Your task to perform on an android device: make emails show in primary in the gmail app Image 0: 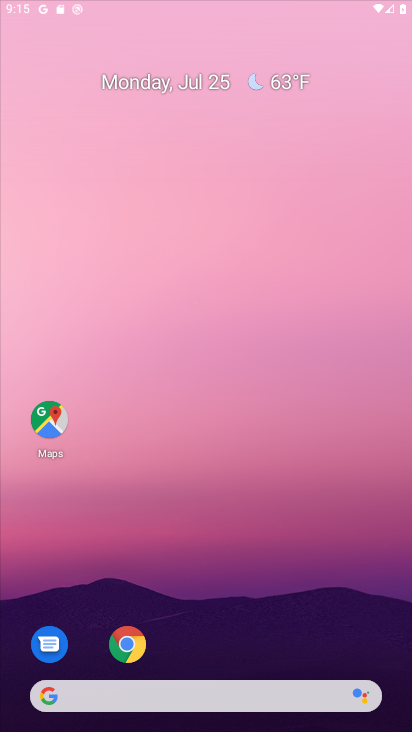
Step 0: drag from (273, 618) to (257, 108)
Your task to perform on an android device: make emails show in primary in the gmail app Image 1: 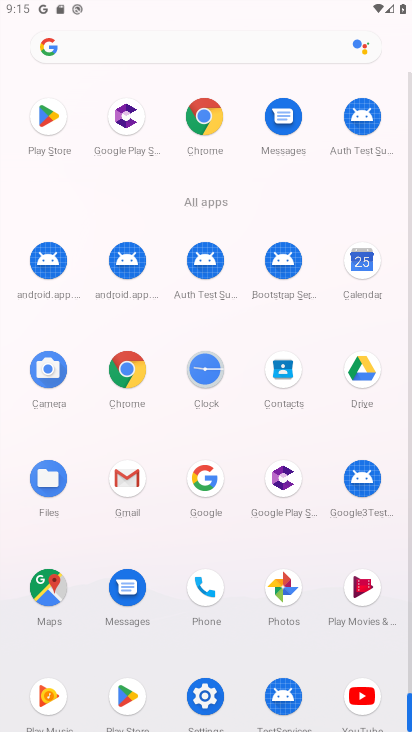
Step 1: click (130, 461)
Your task to perform on an android device: make emails show in primary in the gmail app Image 2: 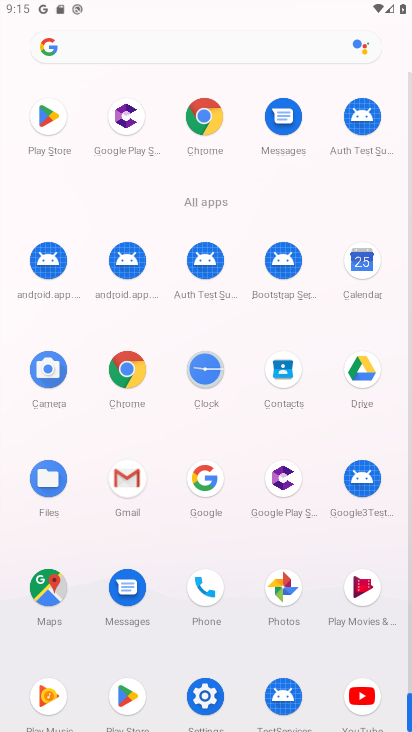
Step 2: click (121, 474)
Your task to perform on an android device: make emails show in primary in the gmail app Image 3: 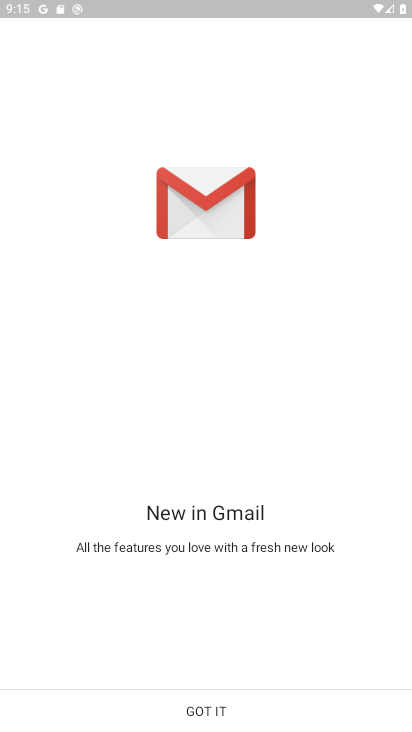
Step 3: click (216, 710)
Your task to perform on an android device: make emails show in primary in the gmail app Image 4: 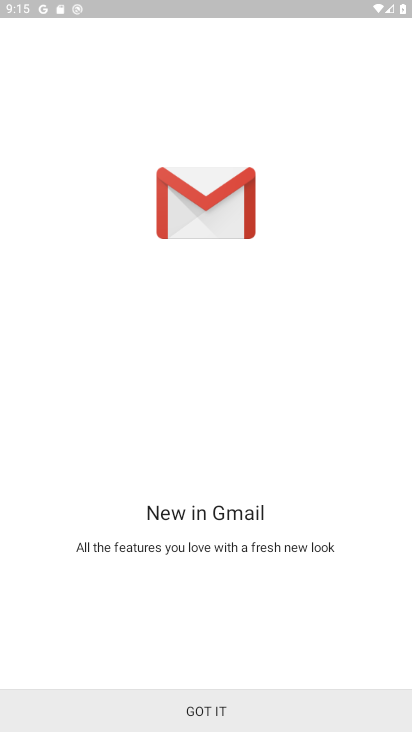
Step 4: click (226, 705)
Your task to perform on an android device: make emails show in primary in the gmail app Image 5: 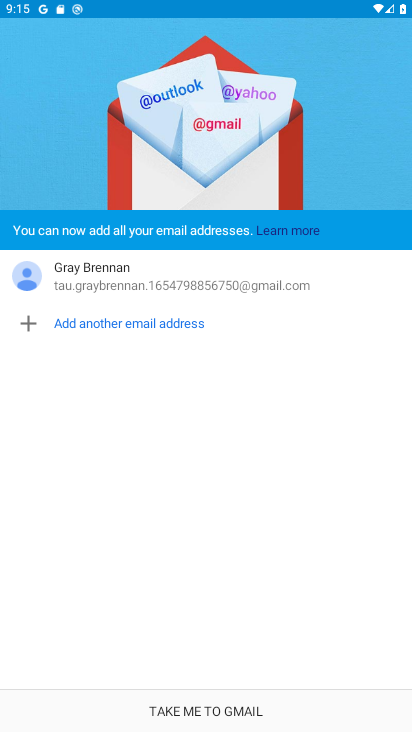
Step 5: click (252, 709)
Your task to perform on an android device: make emails show in primary in the gmail app Image 6: 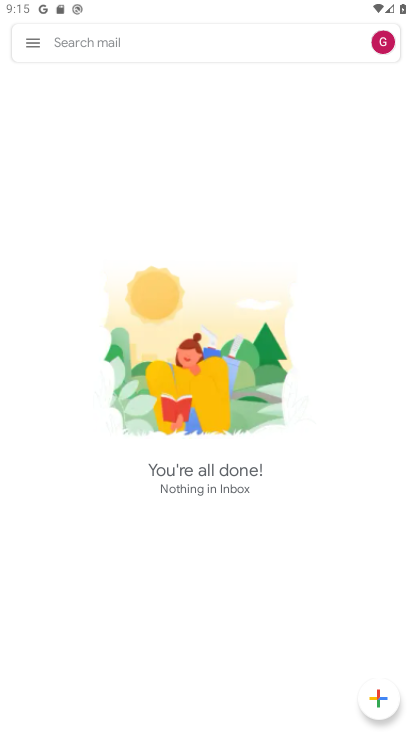
Step 6: click (40, 43)
Your task to perform on an android device: make emails show in primary in the gmail app Image 7: 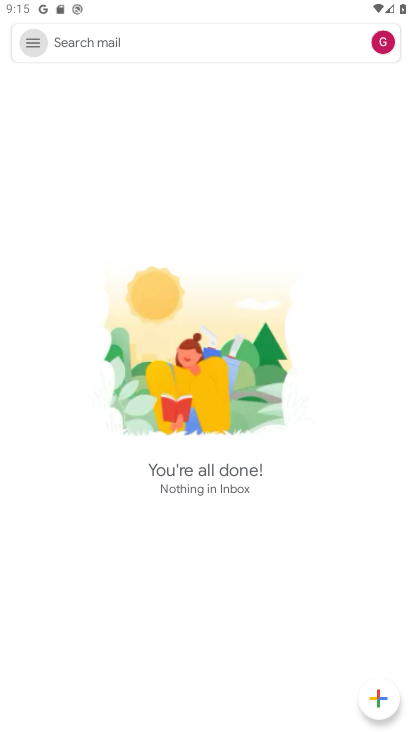
Step 7: click (29, 34)
Your task to perform on an android device: make emails show in primary in the gmail app Image 8: 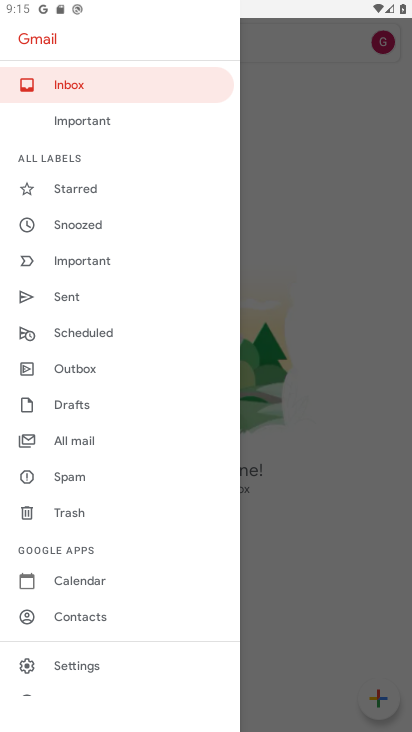
Step 8: click (77, 661)
Your task to perform on an android device: make emails show in primary in the gmail app Image 9: 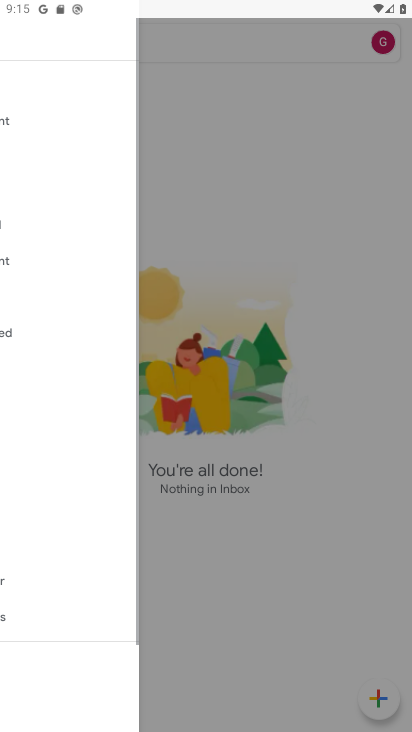
Step 9: click (77, 661)
Your task to perform on an android device: make emails show in primary in the gmail app Image 10: 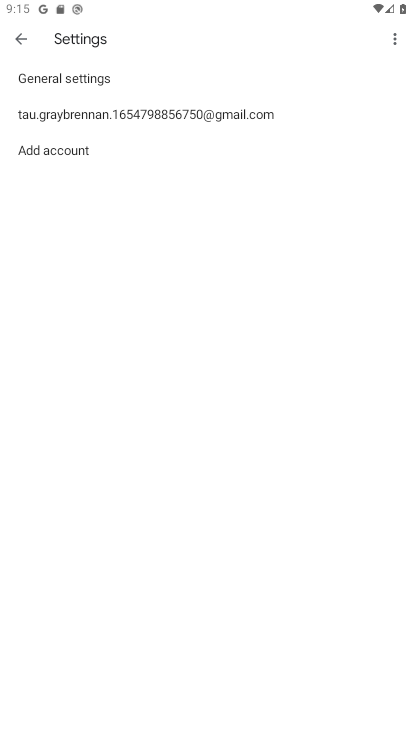
Step 10: click (55, 108)
Your task to perform on an android device: make emails show in primary in the gmail app Image 11: 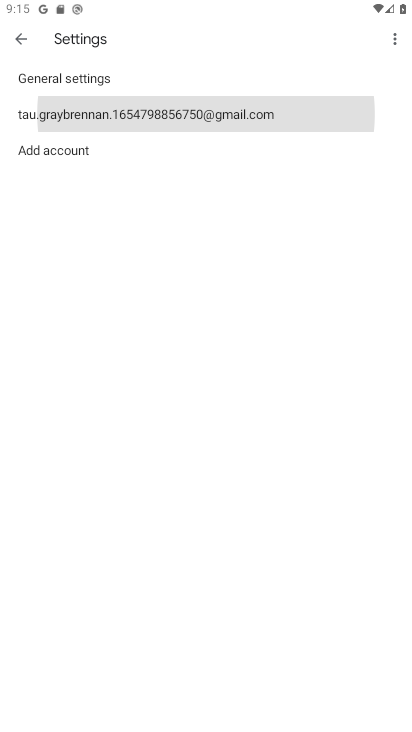
Step 11: click (57, 109)
Your task to perform on an android device: make emails show in primary in the gmail app Image 12: 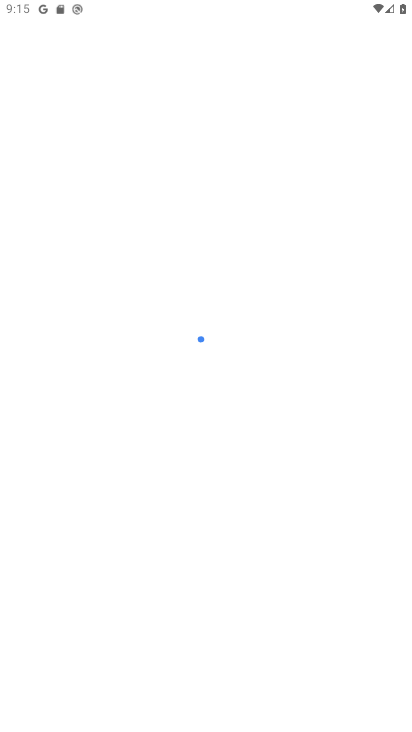
Step 12: press back button
Your task to perform on an android device: make emails show in primary in the gmail app Image 13: 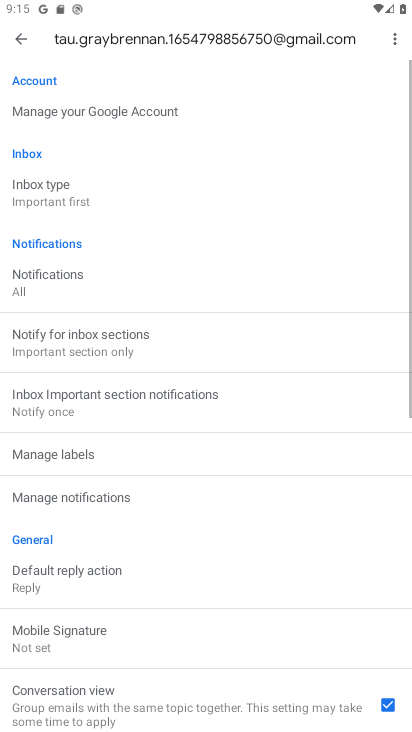
Step 13: click (46, 191)
Your task to perform on an android device: make emails show in primary in the gmail app Image 14: 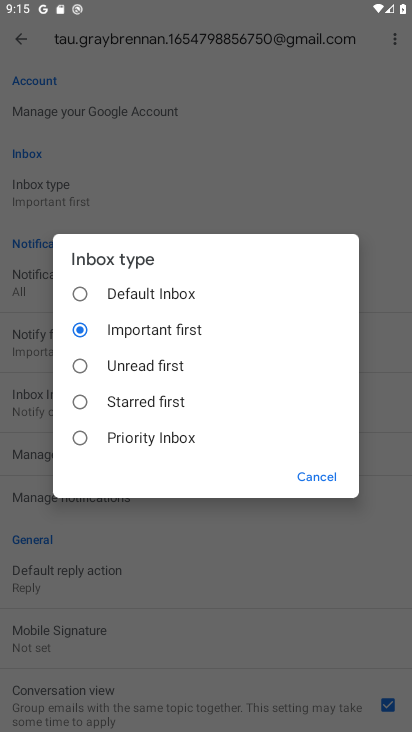
Step 14: click (83, 289)
Your task to perform on an android device: make emails show in primary in the gmail app Image 15: 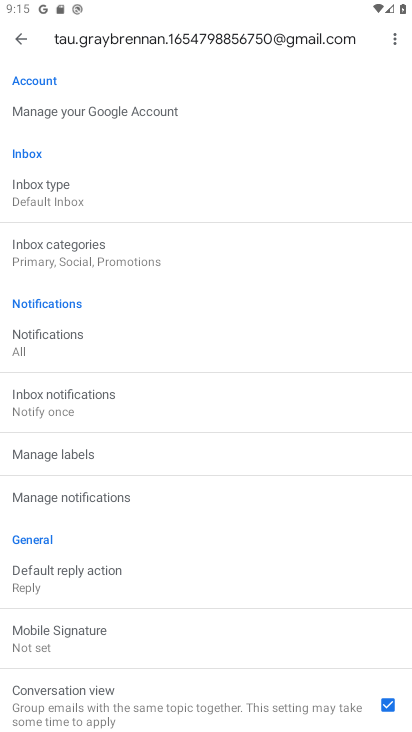
Step 15: task complete